Your task to perform on an android device: turn off data saver in the chrome app Image 0: 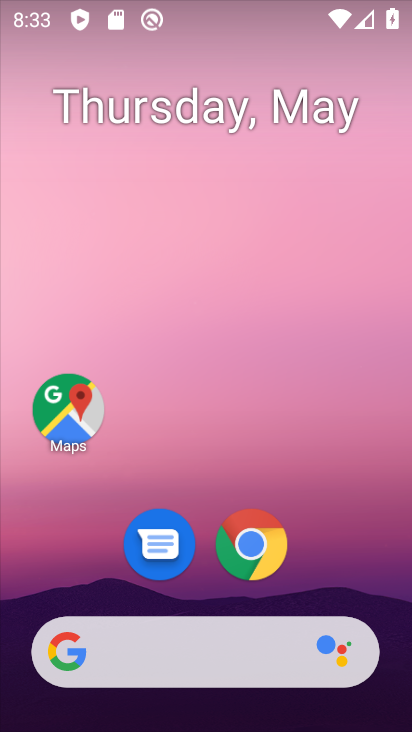
Step 0: click (253, 555)
Your task to perform on an android device: turn off data saver in the chrome app Image 1: 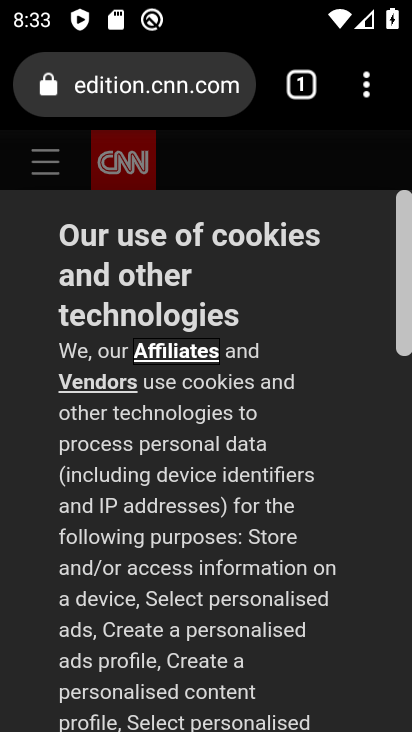
Step 1: click (351, 68)
Your task to perform on an android device: turn off data saver in the chrome app Image 2: 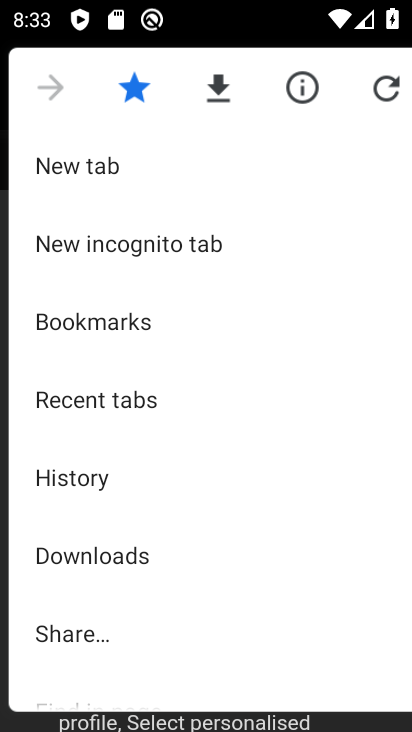
Step 2: drag from (236, 567) to (145, 230)
Your task to perform on an android device: turn off data saver in the chrome app Image 3: 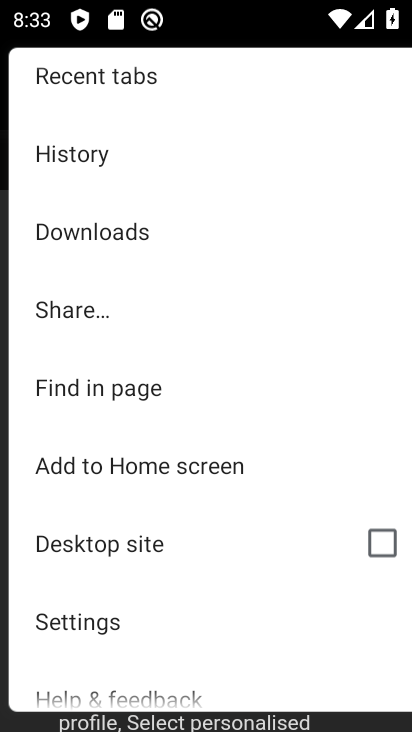
Step 3: click (165, 590)
Your task to perform on an android device: turn off data saver in the chrome app Image 4: 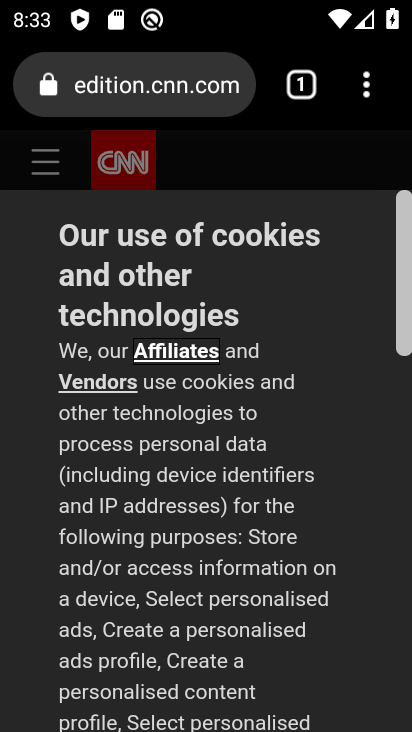
Step 4: click (168, 606)
Your task to perform on an android device: turn off data saver in the chrome app Image 5: 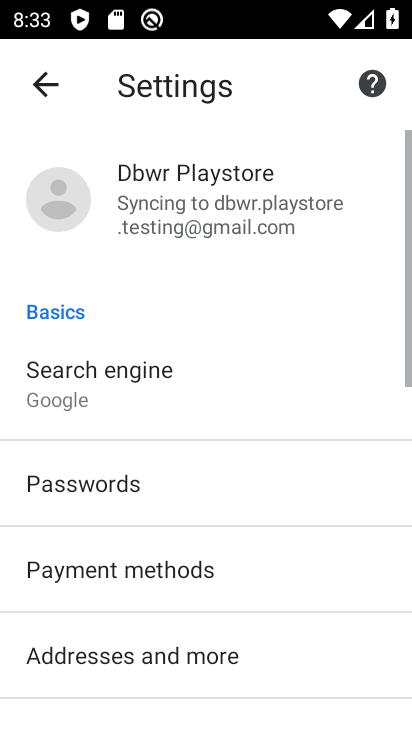
Step 5: drag from (159, 588) to (165, 246)
Your task to perform on an android device: turn off data saver in the chrome app Image 6: 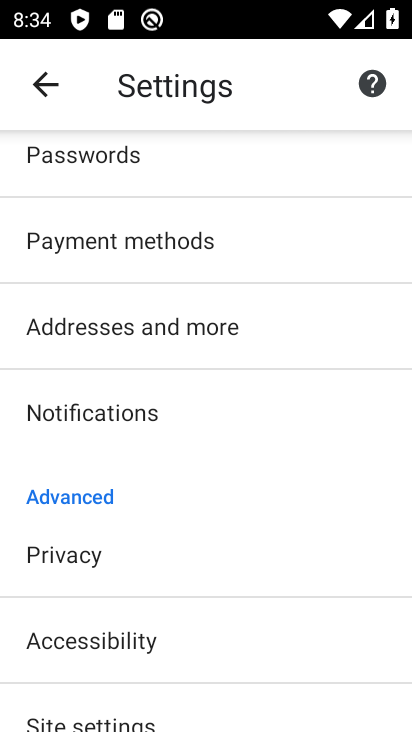
Step 6: drag from (233, 645) to (211, 328)
Your task to perform on an android device: turn off data saver in the chrome app Image 7: 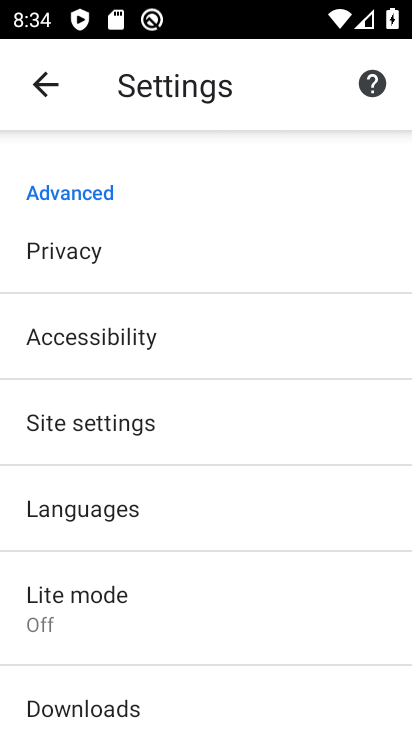
Step 7: click (169, 619)
Your task to perform on an android device: turn off data saver in the chrome app Image 8: 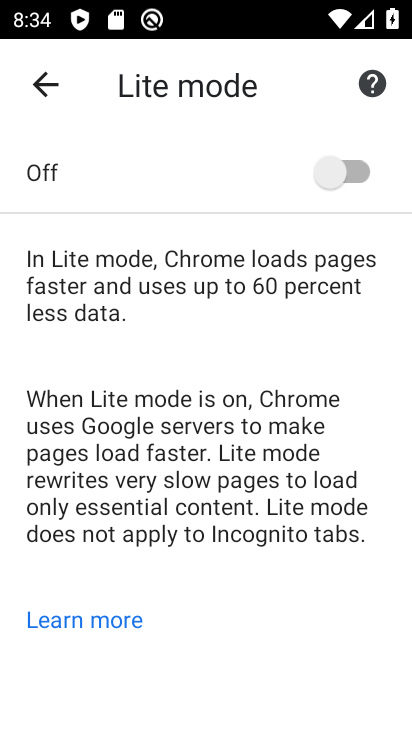
Step 8: task complete